Your task to perform on an android device: turn off location Image 0: 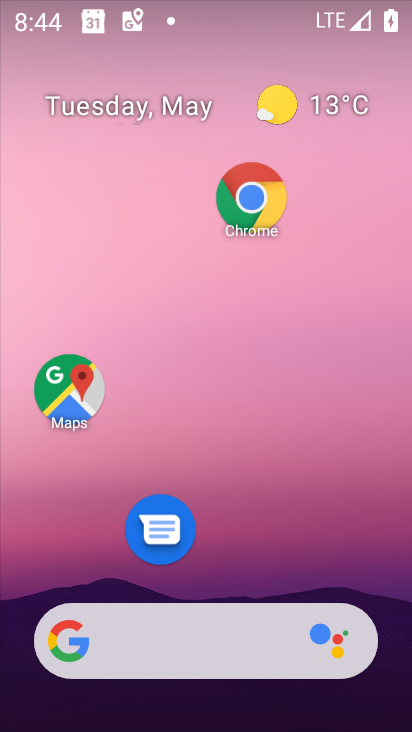
Step 0: drag from (342, 542) to (314, 153)
Your task to perform on an android device: turn off location Image 1: 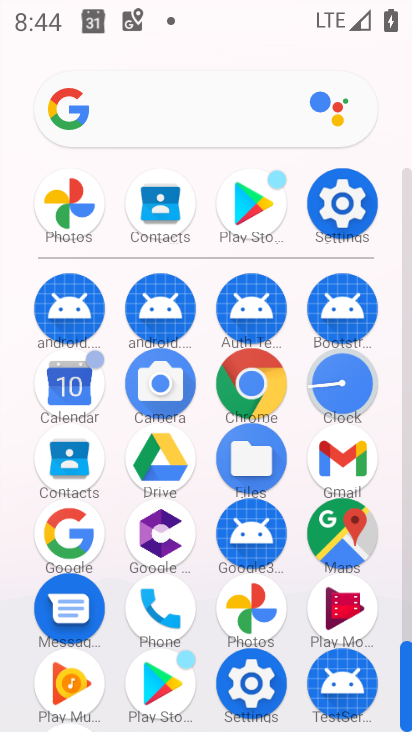
Step 1: click (359, 218)
Your task to perform on an android device: turn off location Image 2: 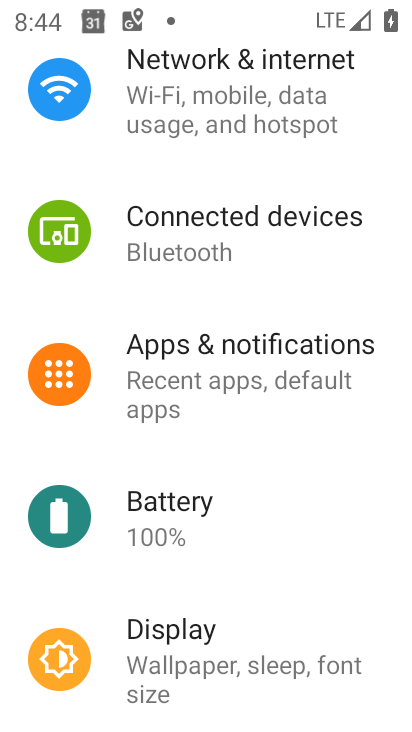
Step 2: click (280, 361)
Your task to perform on an android device: turn off location Image 3: 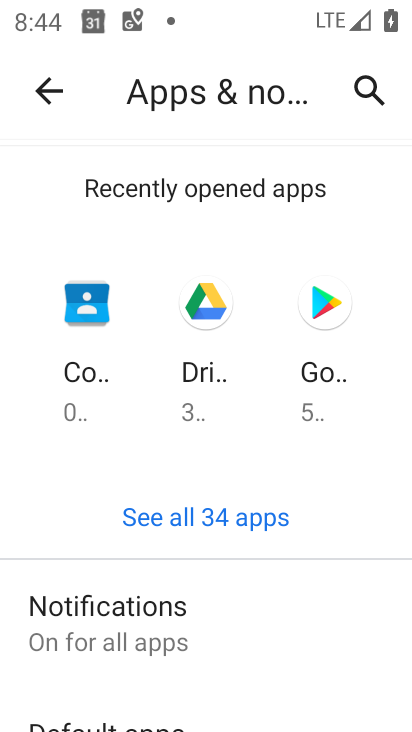
Step 3: click (35, 97)
Your task to perform on an android device: turn off location Image 4: 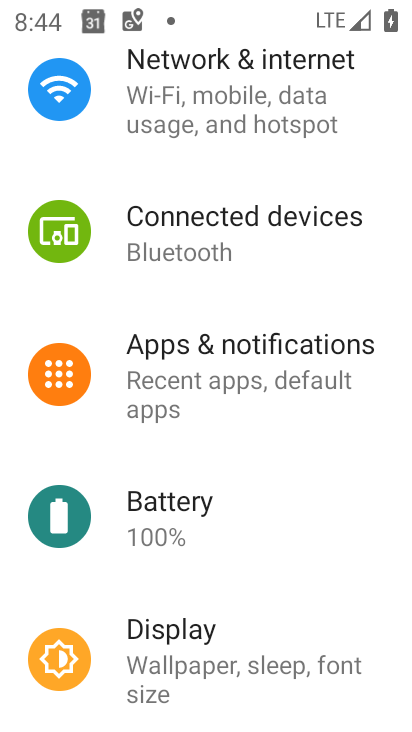
Step 4: drag from (244, 631) to (245, 296)
Your task to perform on an android device: turn off location Image 5: 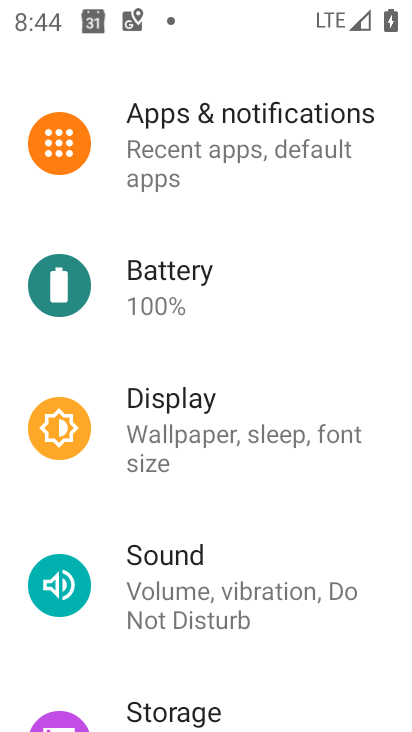
Step 5: drag from (225, 618) to (275, 188)
Your task to perform on an android device: turn off location Image 6: 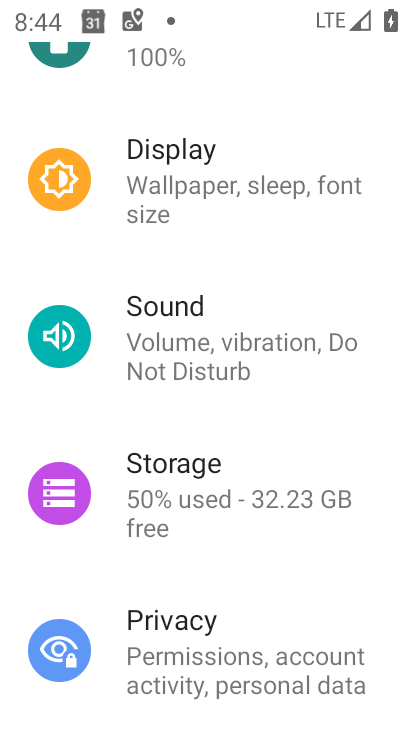
Step 6: drag from (263, 584) to (267, 274)
Your task to perform on an android device: turn off location Image 7: 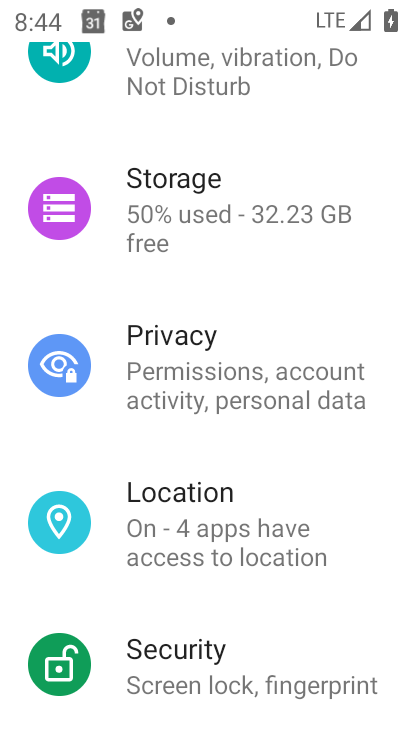
Step 7: click (280, 571)
Your task to perform on an android device: turn off location Image 8: 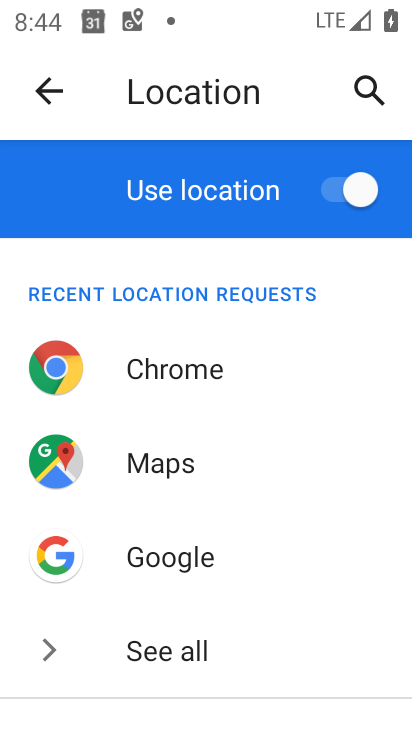
Step 8: drag from (254, 661) to (264, 191)
Your task to perform on an android device: turn off location Image 9: 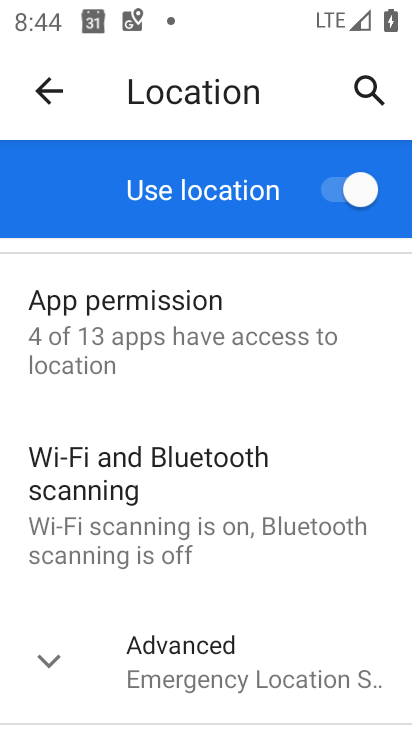
Step 9: click (355, 210)
Your task to perform on an android device: turn off location Image 10: 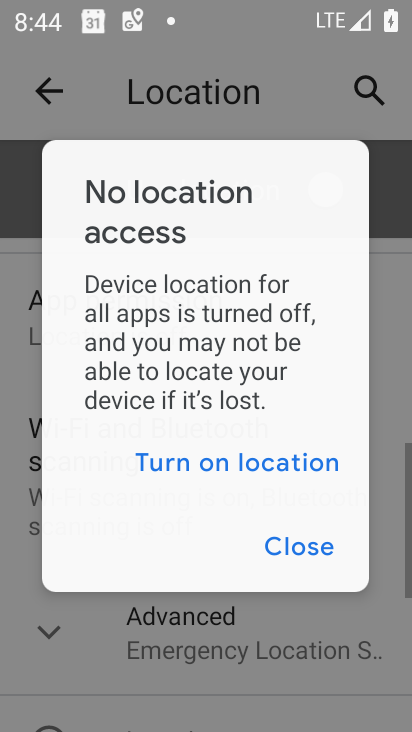
Step 10: task complete